Your task to perform on an android device: open chrome privacy settings Image 0: 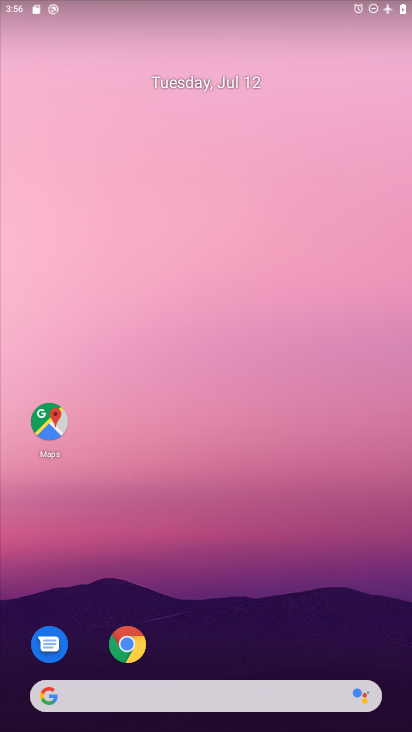
Step 0: drag from (302, 598) to (250, 74)
Your task to perform on an android device: open chrome privacy settings Image 1: 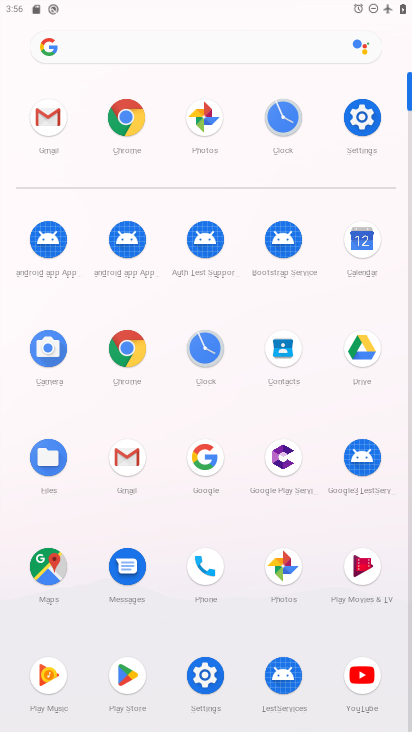
Step 1: click (130, 345)
Your task to perform on an android device: open chrome privacy settings Image 2: 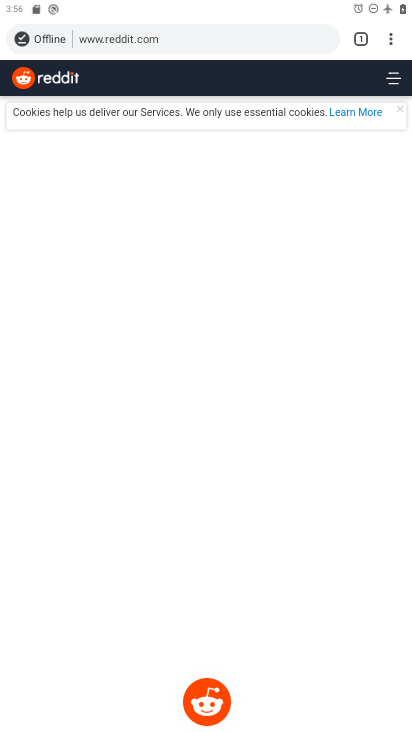
Step 2: drag from (391, 43) to (252, 439)
Your task to perform on an android device: open chrome privacy settings Image 3: 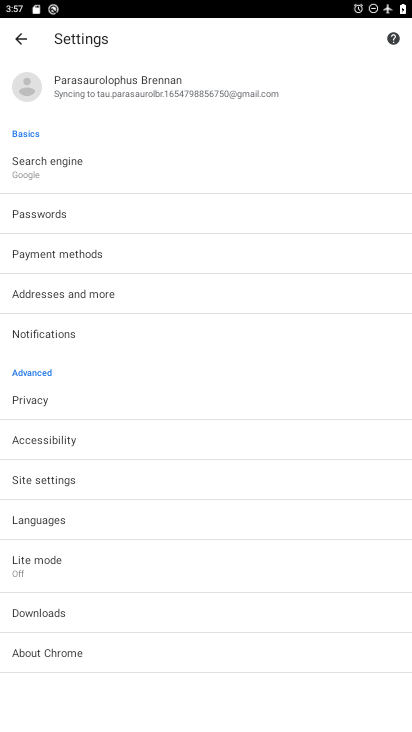
Step 3: click (39, 398)
Your task to perform on an android device: open chrome privacy settings Image 4: 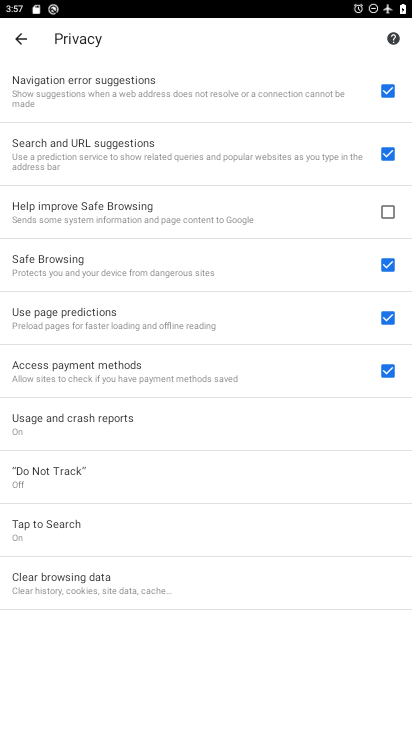
Step 4: task complete